Your task to perform on an android device: turn on data saver in the chrome app Image 0: 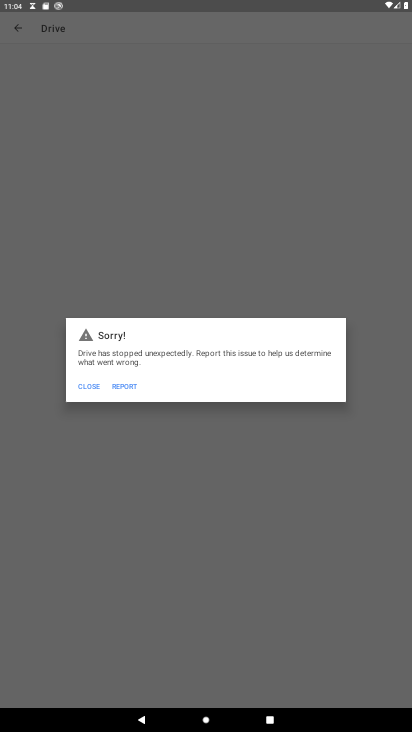
Step 0: press home button
Your task to perform on an android device: turn on data saver in the chrome app Image 1: 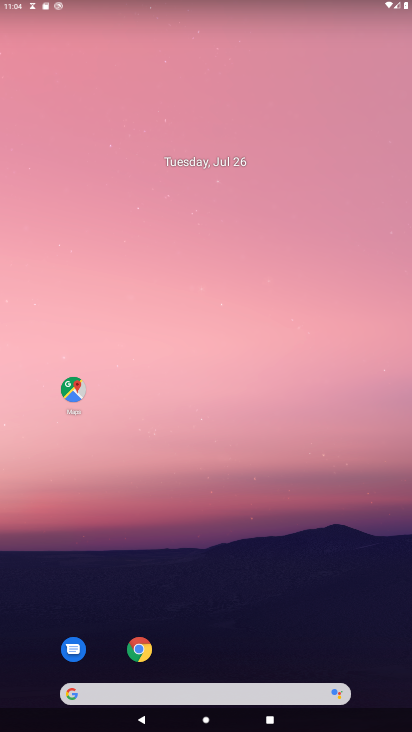
Step 1: click (143, 658)
Your task to perform on an android device: turn on data saver in the chrome app Image 2: 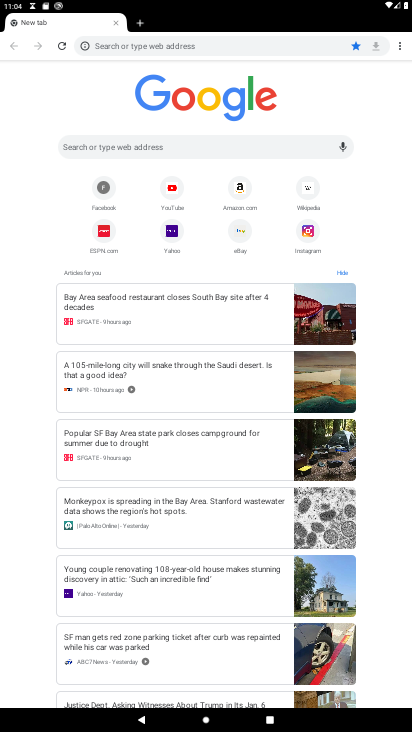
Step 2: click (400, 47)
Your task to perform on an android device: turn on data saver in the chrome app Image 3: 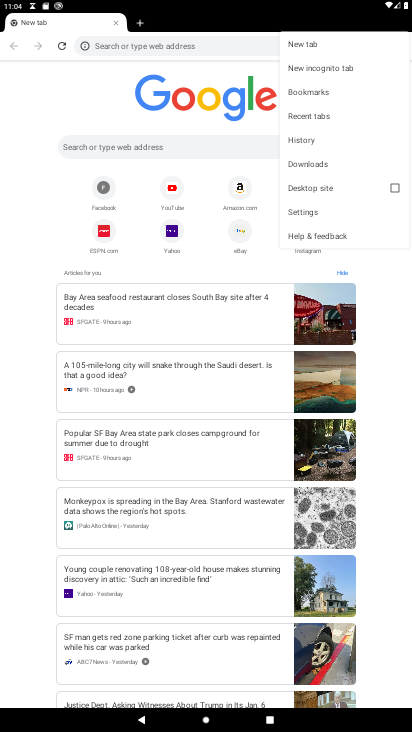
Step 3: click (313, 214)
Your task to perform on an android device: turn on data saver in the chrome app Image 4: 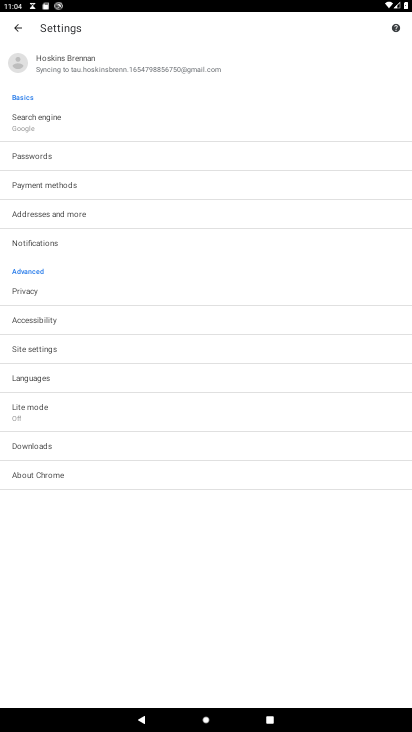
Step 4: click (50, 415)
Your task to perform on an android device: turn on data saver in the chrome app Image 5: 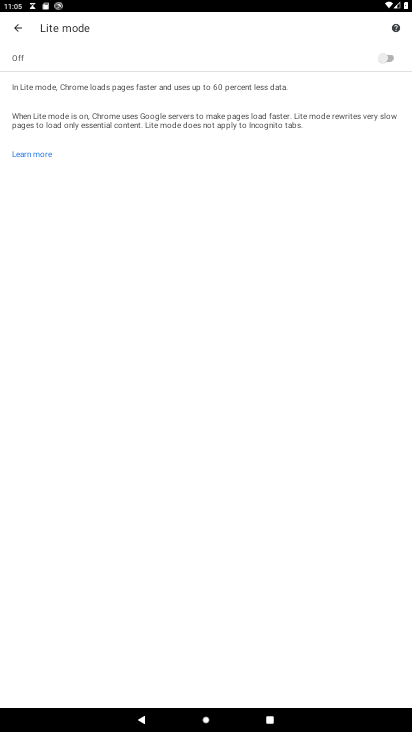
Step 5: click (365, 60)
Your task to perform on an android device: turn on data saver in the chrome app Image 6: 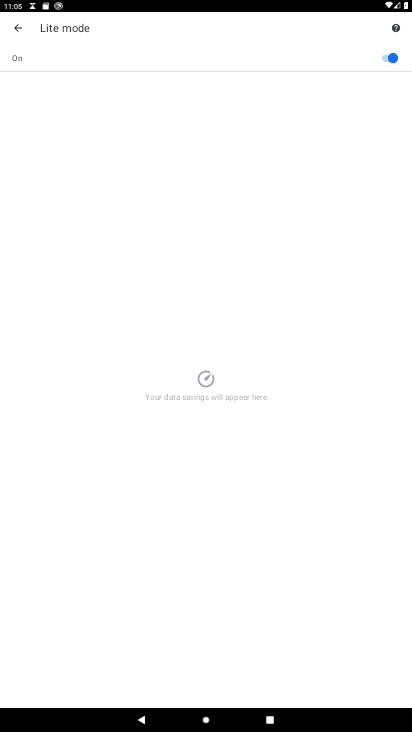
Step 6: task complete